Your task to perform on an android device: Open internet settings Image 0: 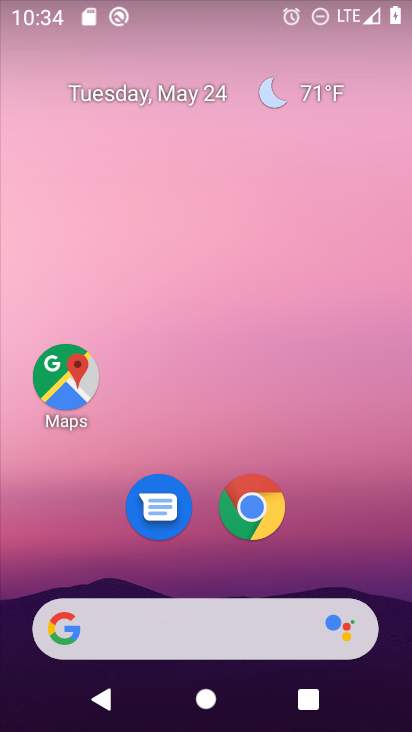
Step 0: drag from (232, 704) to (237, 327)
Your task to perform on an android device: Open internet settings Image 1: 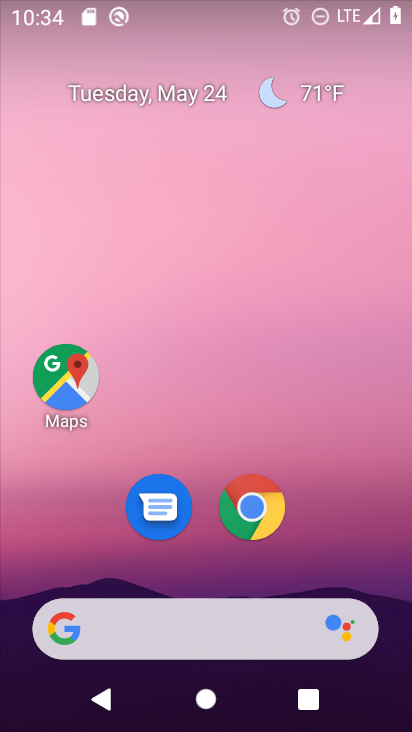
Step 1: drag from (228, 730) to (226, 2)
Your task to perform on an android device: Open internet settings Image 2: 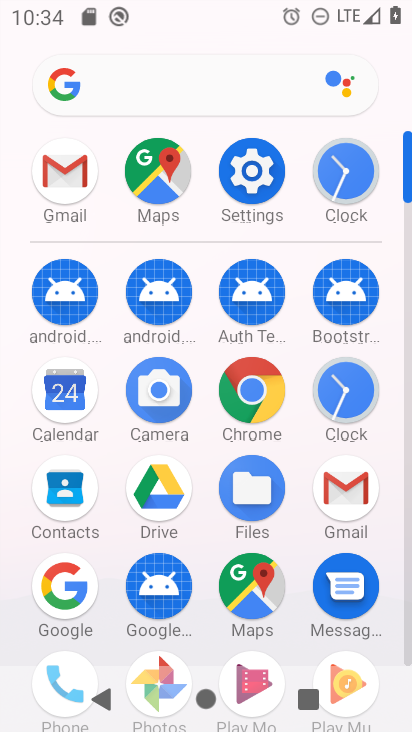
Step 2: click (250, 151)
Your task to perform on an android device: Open internet settings Image 3: 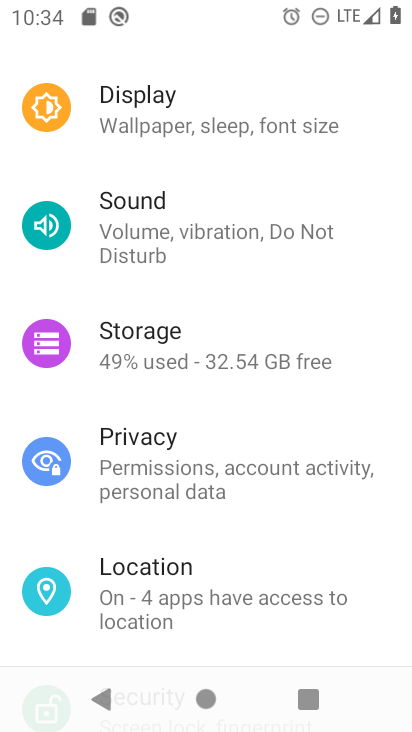
Step 3: drag from (233, 101) to (299, 539)
Your task to perform on an android device: Open internet settings Image 4: 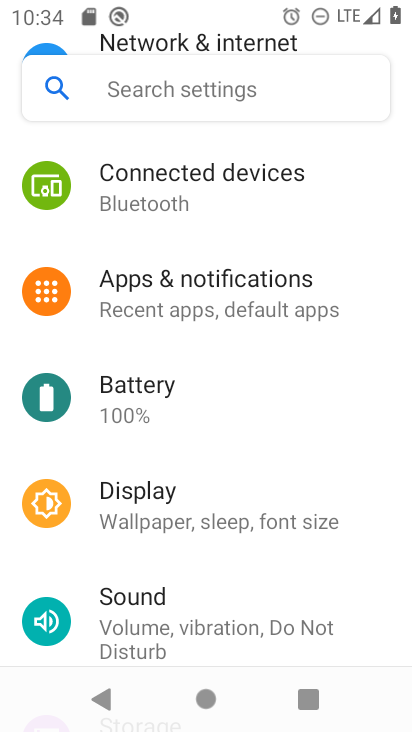
Step 4: drag from (239, 156) to (265, 545)
Your task to perform on an android device: Open internet settings Image 5: 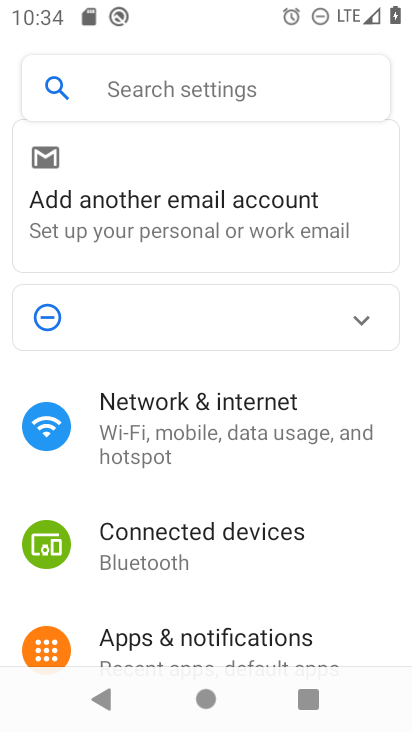
Step 5: click (230, 409)
Your task to perform on an android device: Open internet settings Image 6: 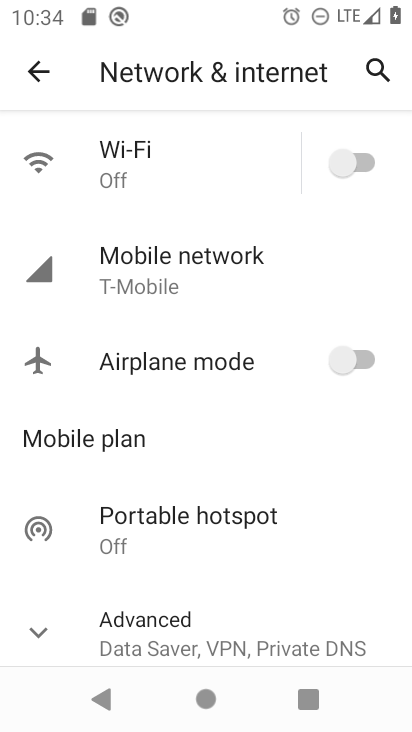
Step 6: task complete